Your task to perform on an android device: empty trash in google photos Image 0: 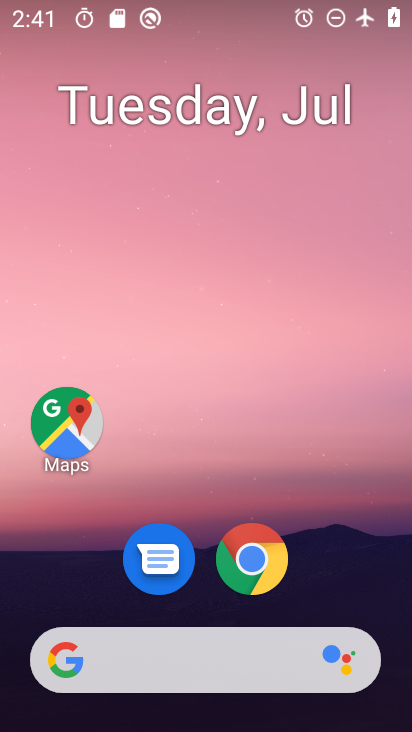
Step 0: drag from (384, 572) to (366, 130)
Your task to perform on an android device: empty trash in google photos Image 1: 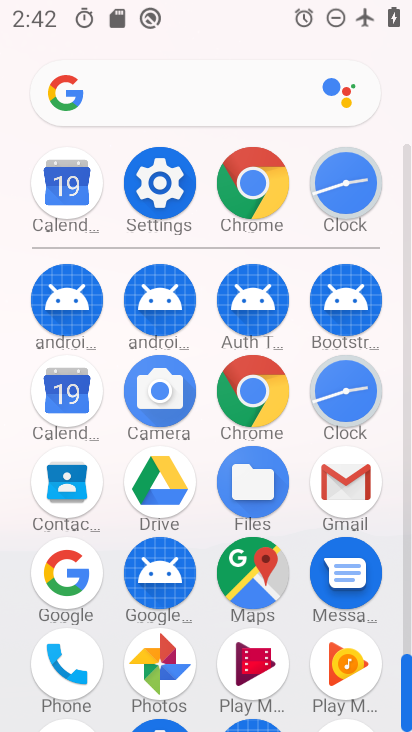
Step 1: click (146, 672)
Your task to perform on an android device: empty trash in google photos Image 2: 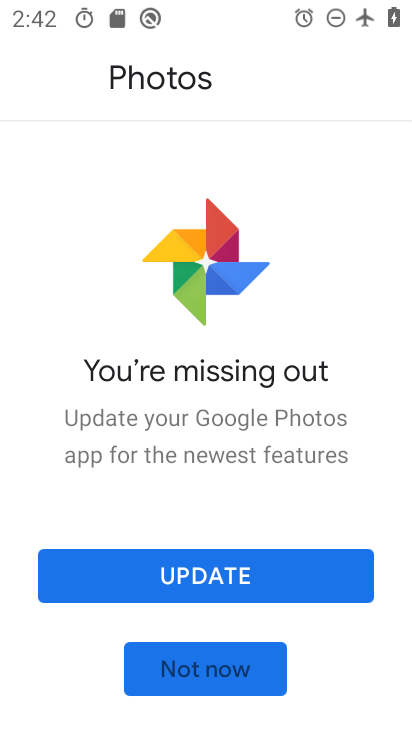
Step 2: click (241, 577)
Your task to perform on an android device: empty trash in google photos Image 3: 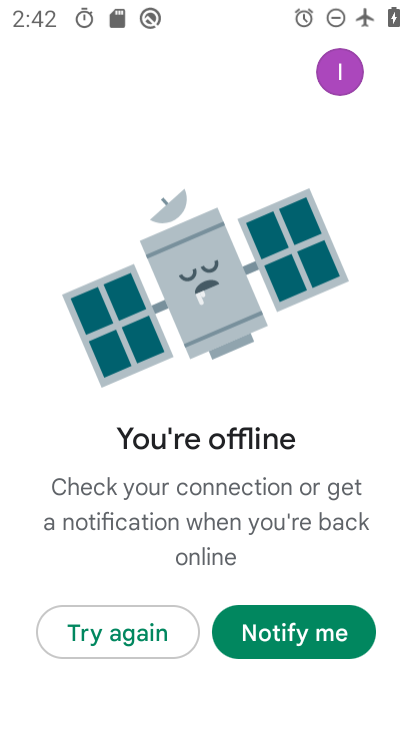
Step 3: task complete